Your task to perform on an android device: turn on notifications settings in the gmail app Image 0: 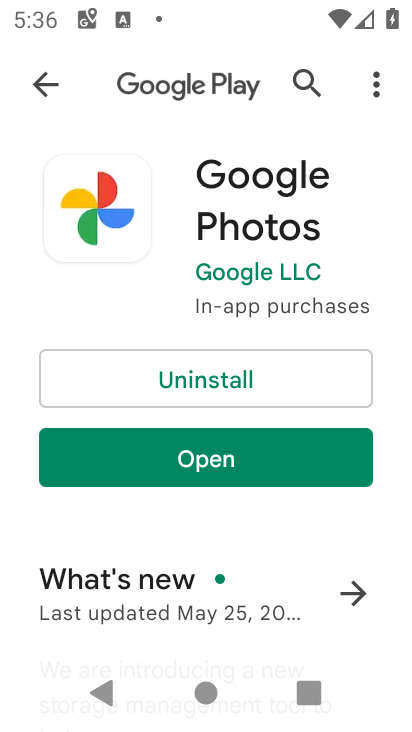
Step 0: press home button
Your task to perform on an android device: turn on notifications settings in the gmail app Image 1: 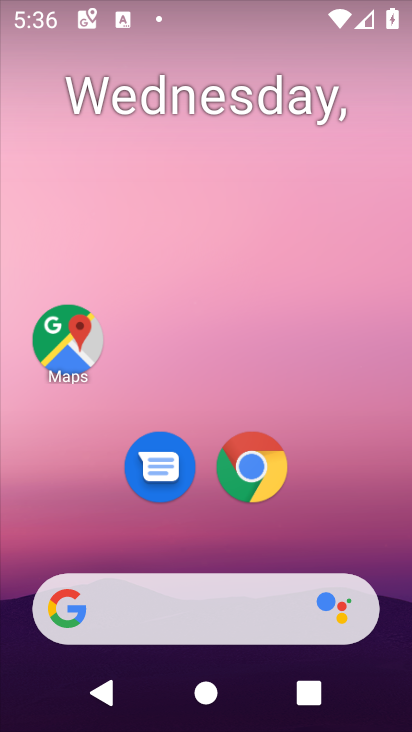
Step 1: drag from (331, 533) to (241, 14)
Your task to perform on an android device: turn on notifications settings in the gmail app Image 2: 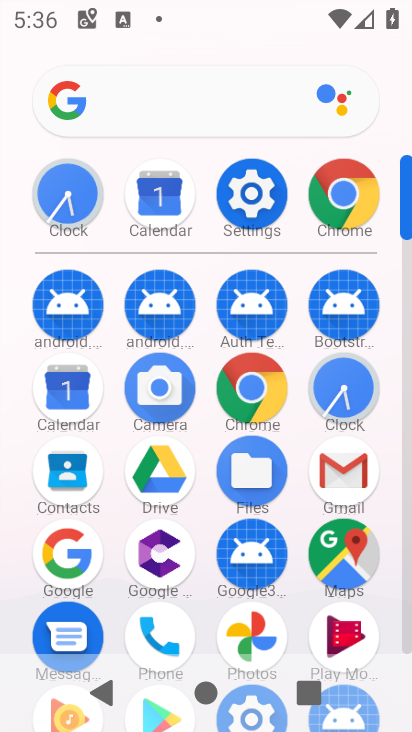
Step 2: click (348, 476)
Your task to perform on an android device: turn on notifications settings in the gmail app Image 3: 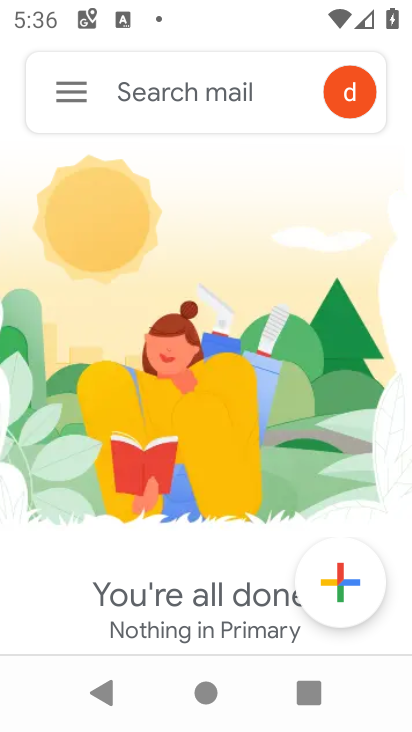
Step 3: click (66, 95)
Your task to perform on an android device: turn on notifications settings in the gmail app Image 4: 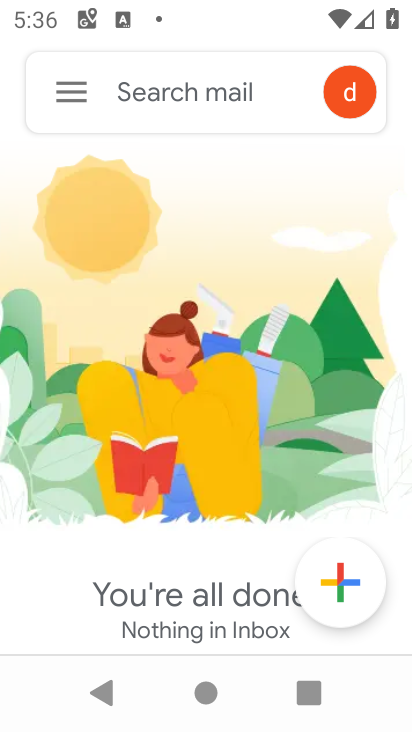
Step 4: click (76, 98)
Your task to perform on an android device: turn on notifications settings in the gmail app Image 5: 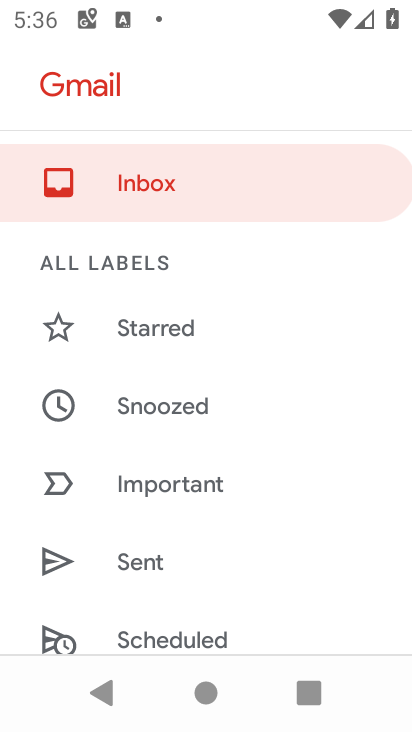
Step 5: drag from (251, 535) to (133, 12)
Your task to perform on an android device: turn on notifications settings in the gmail app Image 6: 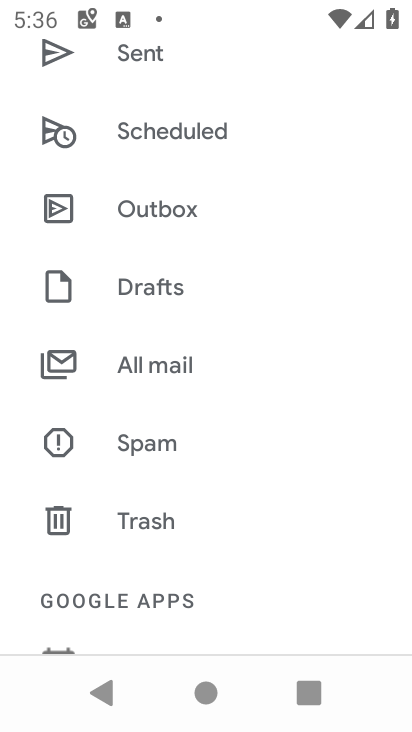
Step 6: drag from (272, 570) to (206, 182)
Your task to perform on an android device: turn on notifications settings in the gmail app Image 7: 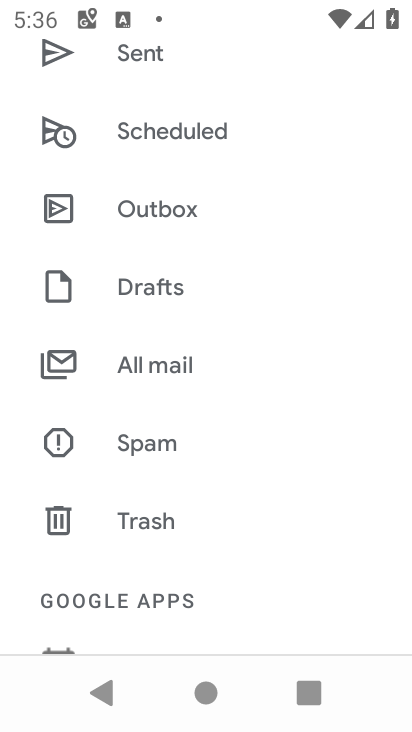
Step 7: drag from (281, 471) to (304, 196)
Your task to perform on an android device: turn on notifications settings in the gmail app Image 8: 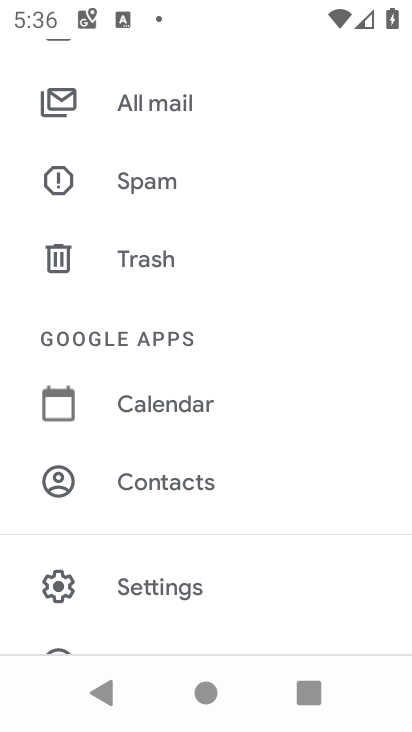
Step 8: drag from (266, 517) to (206, 79)
Your task to perform on an android device: turn on notifications settings in the gmail app Image 9: 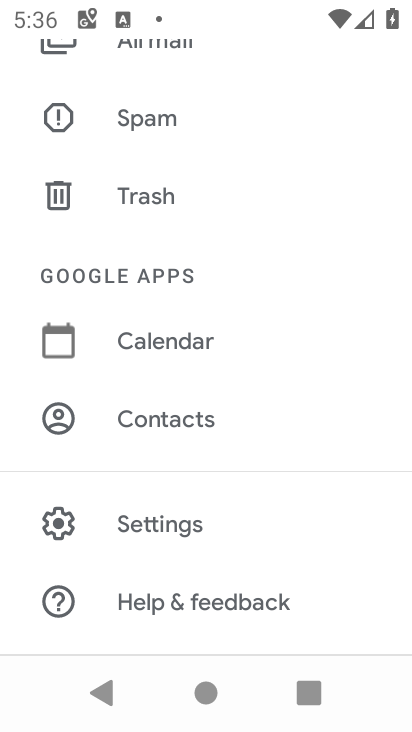
Step 9: click (261, 513)
Your task to perform on an android device: turn on notifications settings in the gmail app Image 10: 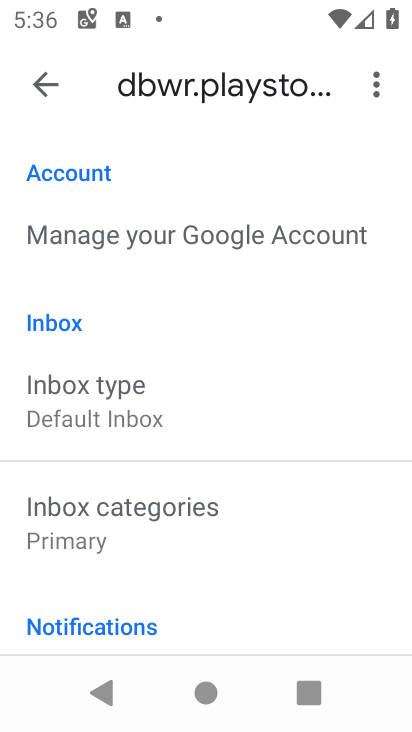
Step 10: drag from (275, 535) to (188, 119)
Your task to perform on an android device: turn on notifications settings in the gmail app Image 11: 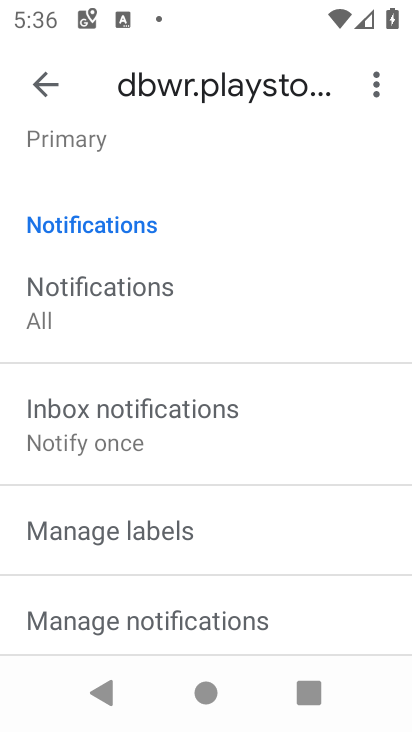
Step 11: click (175, 325)
Your task to perform on an android device: turn on notifications settings in the gmail app Image 12: 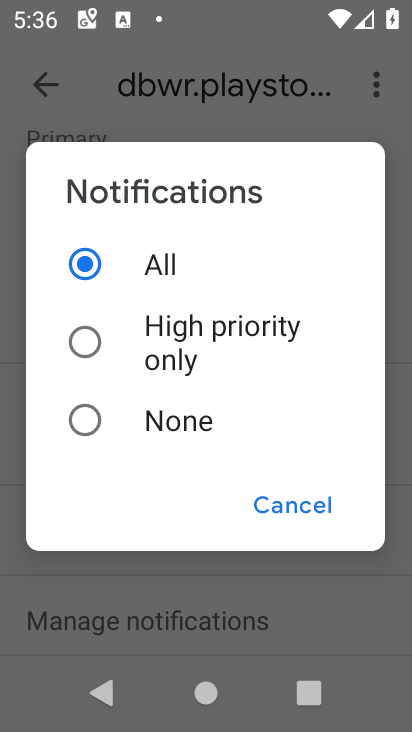
Step 12: task complete